Your task to perform on an android device: toggle sleep mode Image 0: 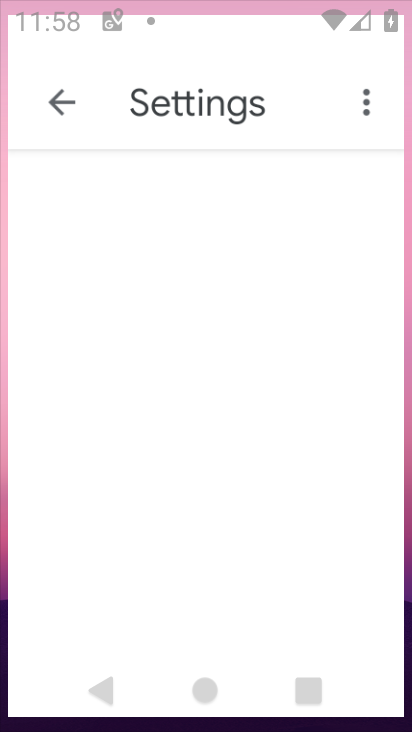
Step 0: drag from (314, 723) to (202, 275)
Your task to perform on an android device: toggle sleep mode Image 1: 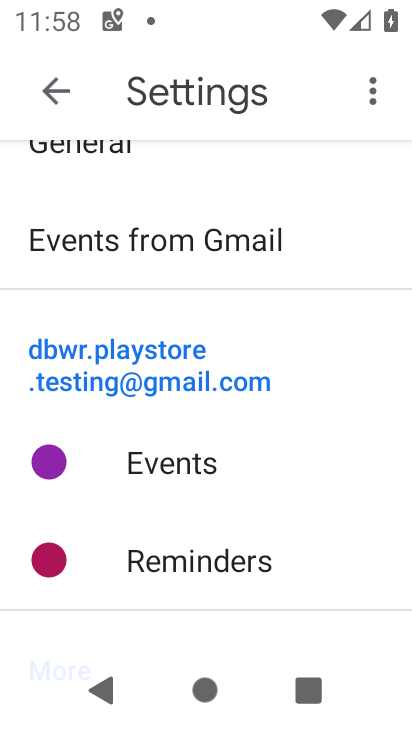
Step 1: click (58, 101)
Your task to perform on an android device: toggle sleep mode Image 2: 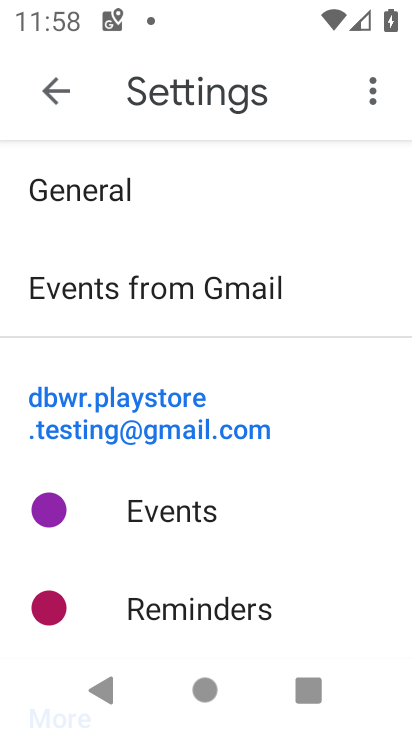
Step 2: click (41, 82)
Your task to perform on an android device: toggle sleep mode Image 3: 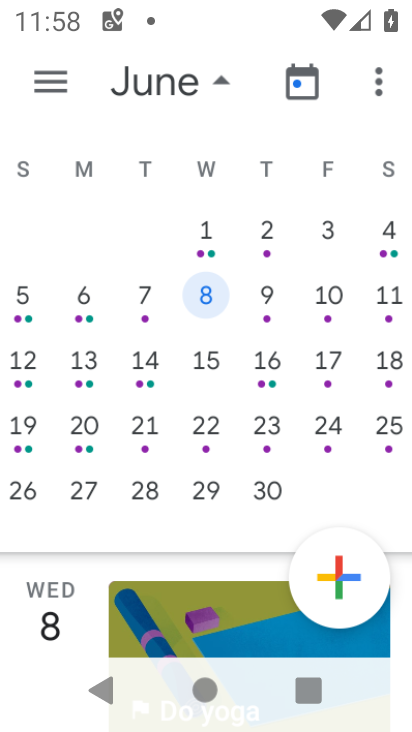
Step 3: click (50, 87)
Your task to perform on an android device: toggle sleep mode Image 4: 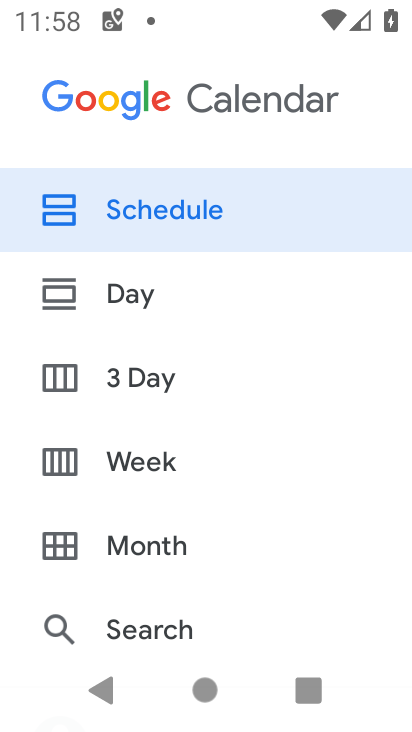
Step 4: press back button
Your task to perform on an android device: toggle sleep mode Image 5: 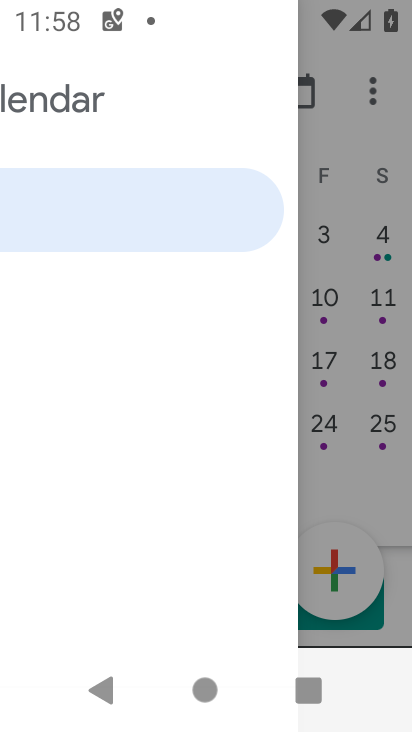
Step 5: press back button
Your task to perform on an android device: toggle sleep mode Image 6: 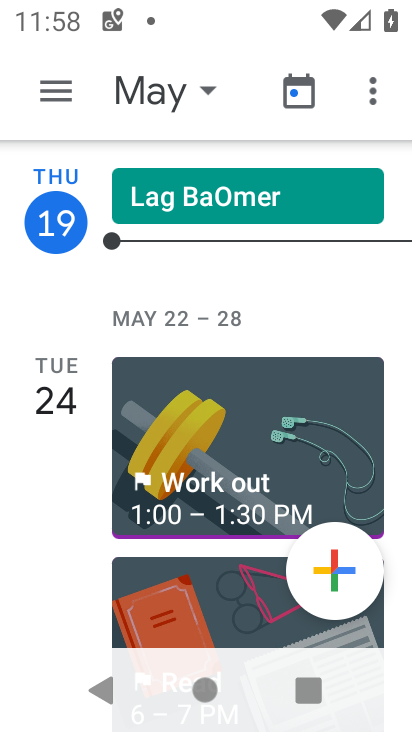
Step 6: press home button
Your task to perform on an android device: toggle sleep mode Image 7: 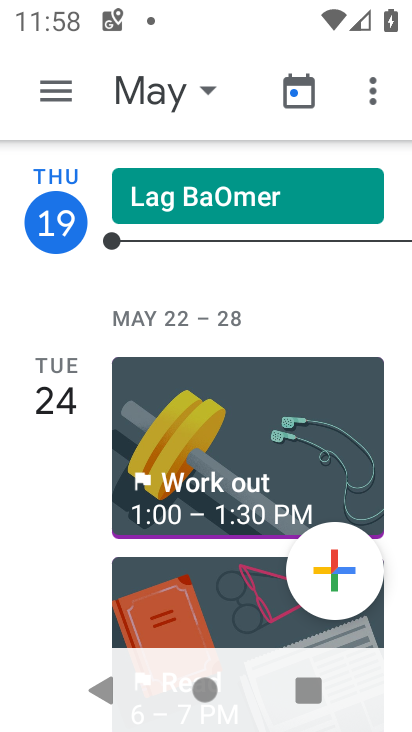
Step 7: press home button
Your task to perform on an android device: toggle sleep mode Image 8: 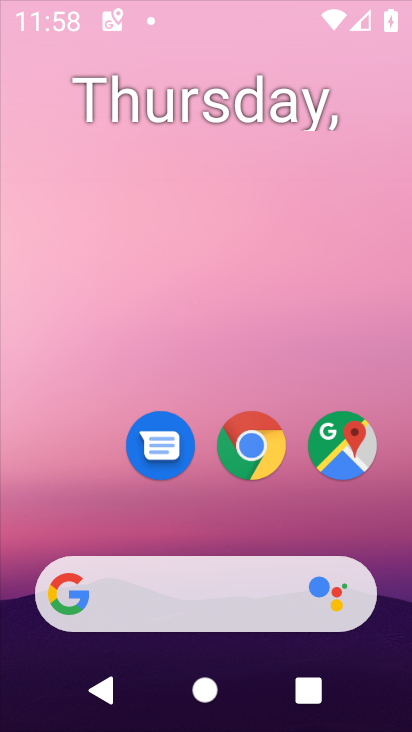
Step 8: press home button
Your task to perform on an android device: toggle sleep mode Image 9: 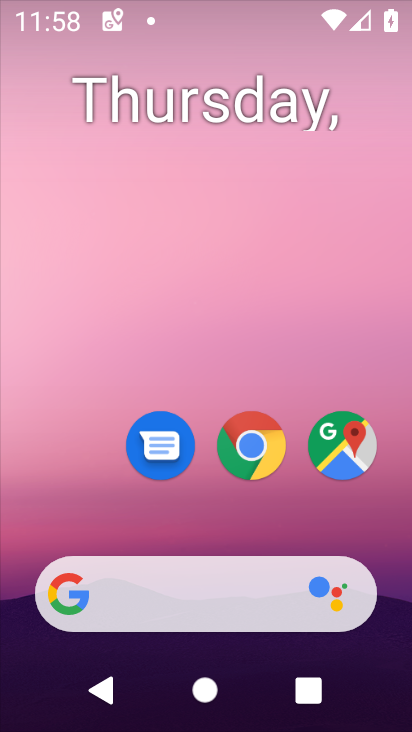
Step 9: press home button
Your task to perform on an android device: toggle sleep mode Image 10: 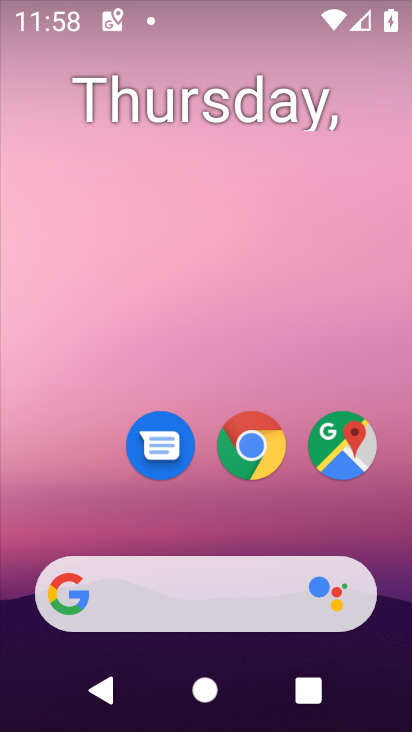
Step 10: drag from (284, 671) to (191, 61)
Your task to perform on an android device: toggle sleep mode Image 11: 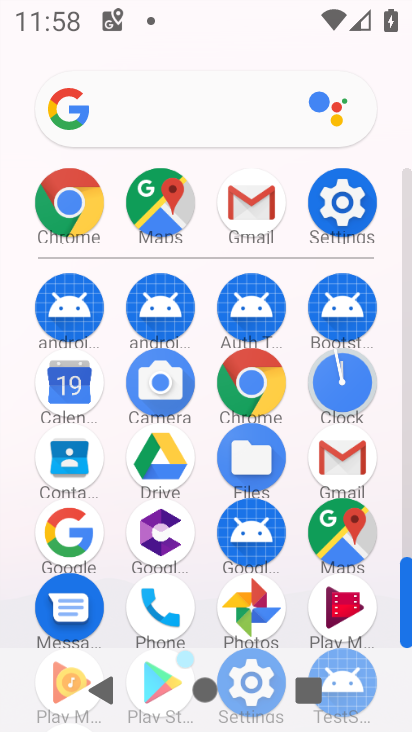
Step 11: click (332, 211)
Your task to perform on an android device: toggle sleep mode Image 12: 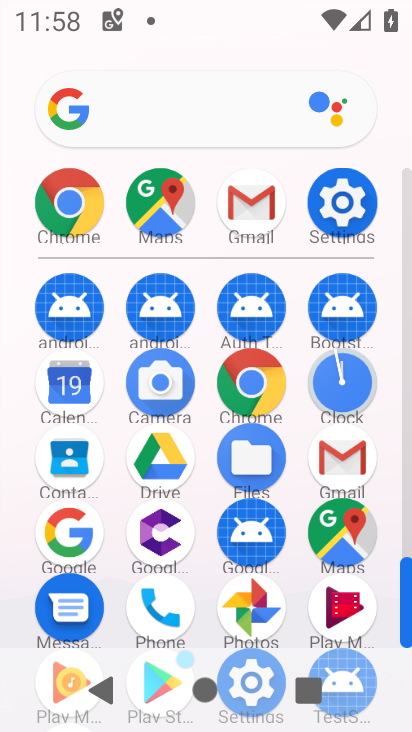
Step 12: click (332, 211)
Your task to perform on an android device: toggle sleep mode Image 13: 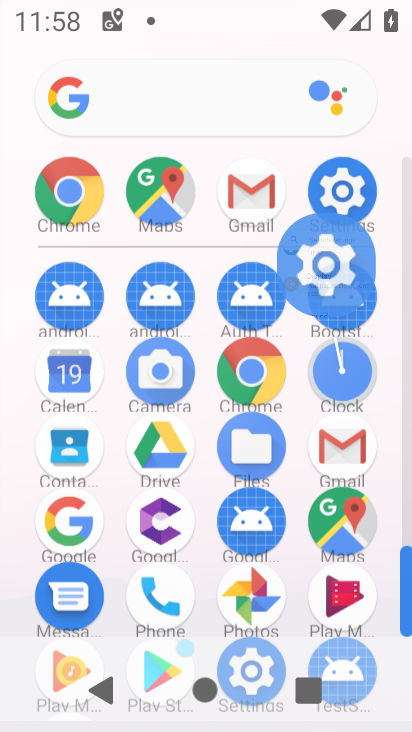
Step 13: click (333, 210)
Your task to perform on an android device: toggle sleep mode Image 14: 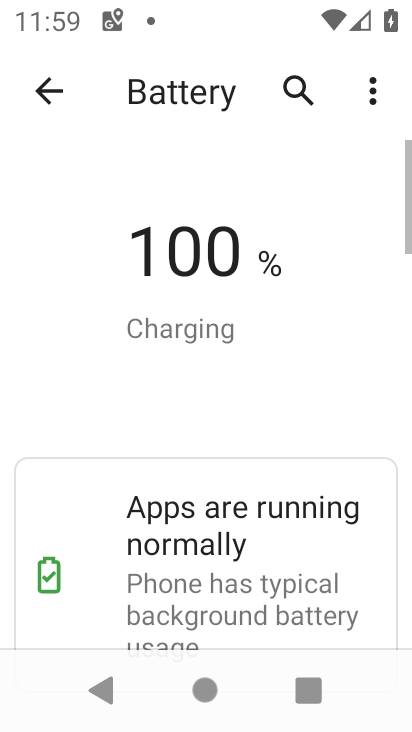
Step 14: click (31, 94)
Your task to perform on an android device: toggle sleep mode Image 15: 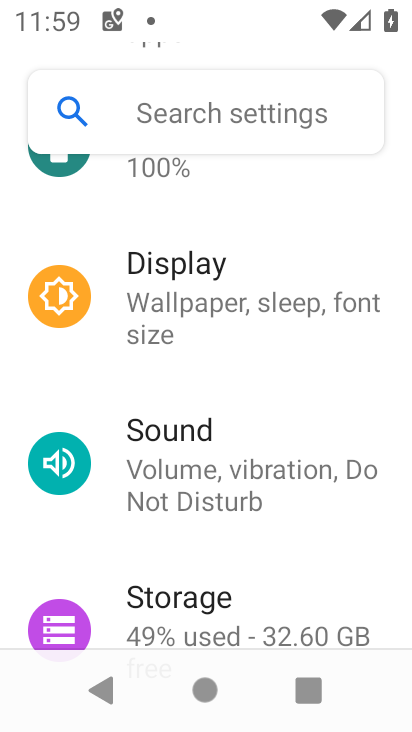
Step 15: drag from (195, 397) to (132, 108)
Your task to perform on an android device: toggle sleep mode Image 16: 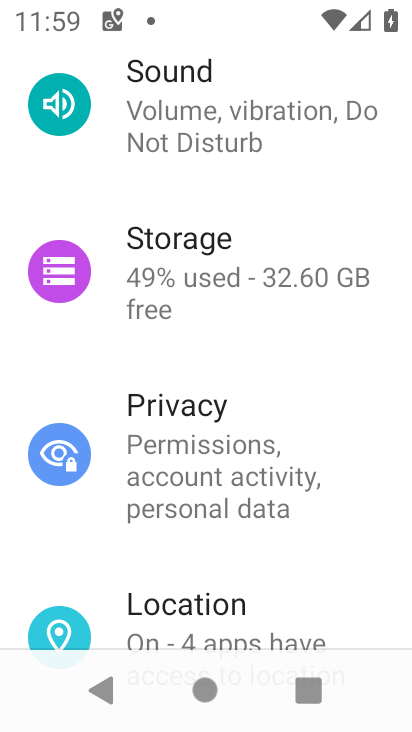
Step 16: drag from (223, 468) to (219, 147)
Your task to perform on an android device: toggle sleep mode Image 17: 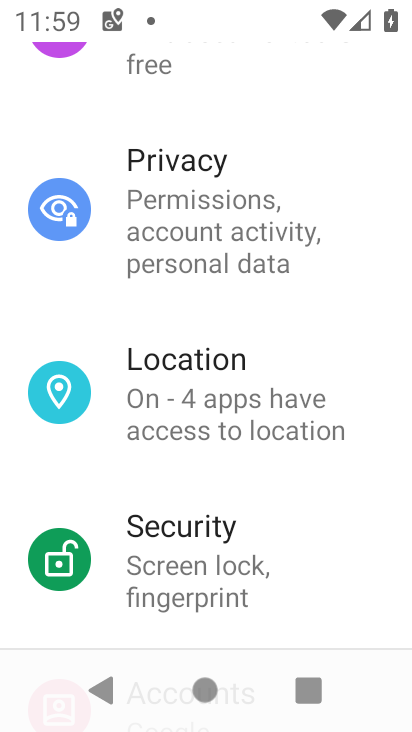
Step 17: drag from (231, 514) to (229, 263)
Your task to perform on an android device: toggle sleep mode Image 18: 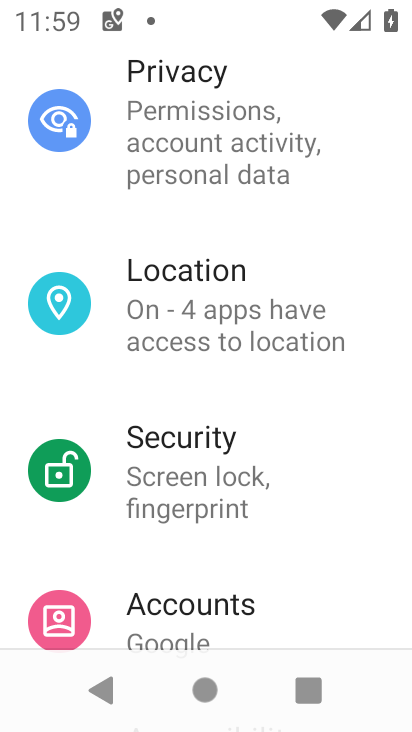
Step 18: drag from (270, 508) to (270, 127)
Your task to perform on an android device: toggle sleep mode Image 19: 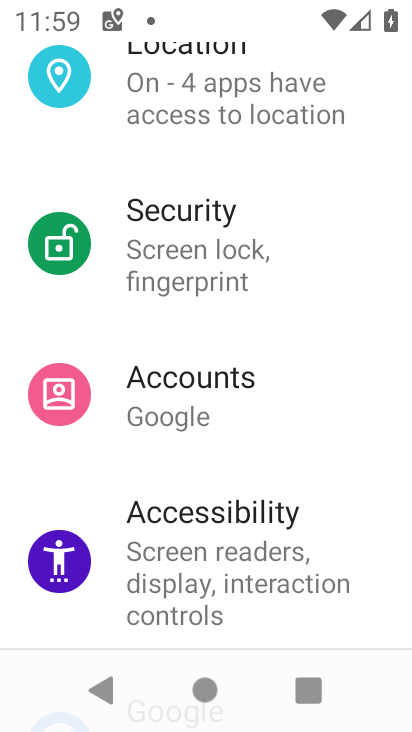
Step 19: drag from (267, 618) to (203, 119)
Your task to perform on an android device: toggle sleep mode Image 20: 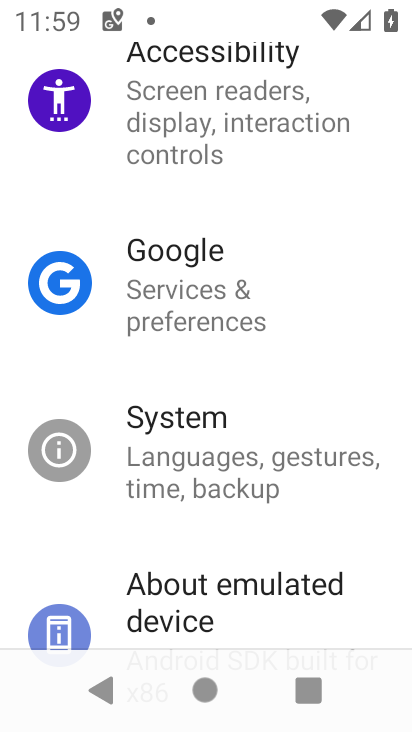
Step 20: drag from (191, 414) to (190, 45)
Your task to perform on an android device: toggle sleep mode Image 21: 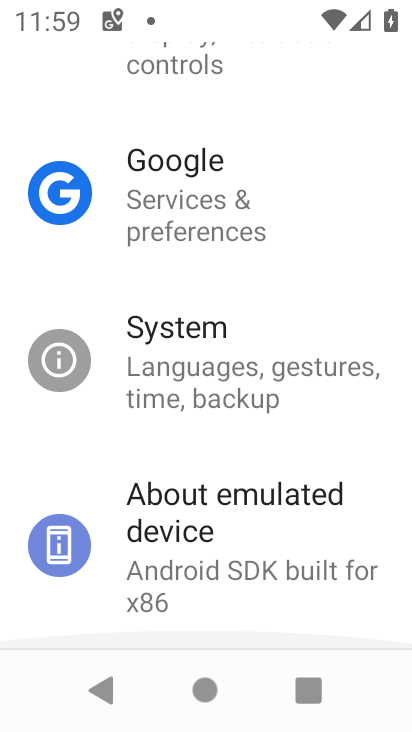
Step 21: drag from (204, 444) to (207, 75)
Your task to perform on an android device: toggle sleep mode Image 22: 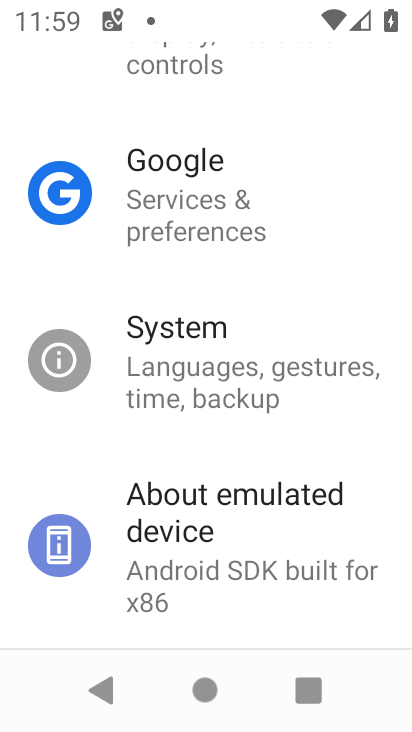
Step 22: drag from (218, 256) to (208, 538)
Your task to perform on an android device: toggle sleep mode Image 23: 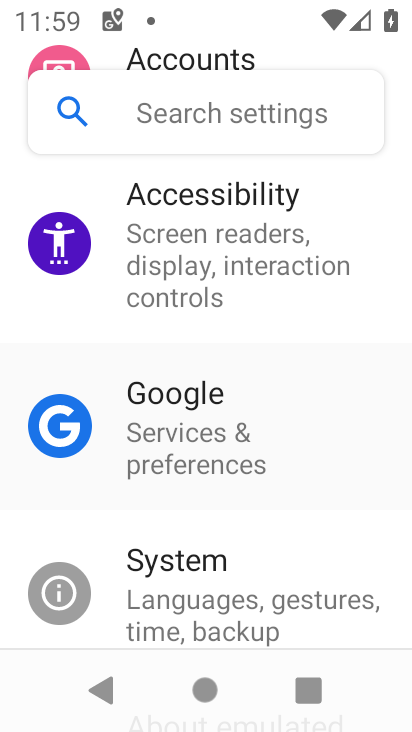
Step 23: drag from (187, 283) to (204, 572)
Your task to perform on an android device: toggle sleep mode Image 24: 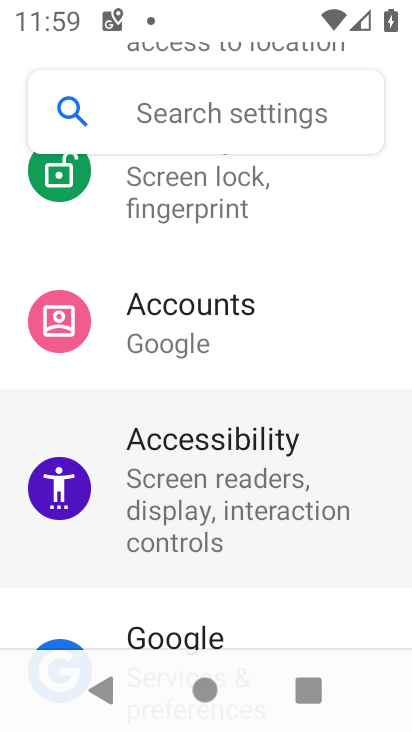
Step 24: drag from (203, 321) to (201, 582)
Your task to perform on an android device: toggle sleep mode Image 25: 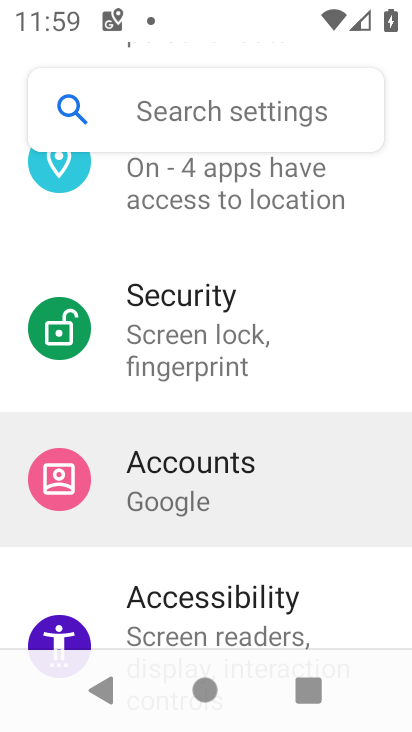
Step 25: drag from (201, 268) to (224, 590)
Your task to perform on an android device: toggle sleep mode Image 26: 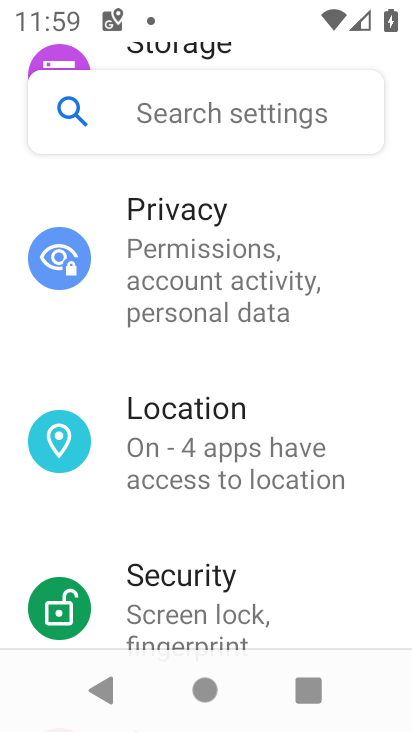
Step 26: drag from (236, 269) to (221, 579)
Your task to perform on an android device: toggle sleep mode Image 27: 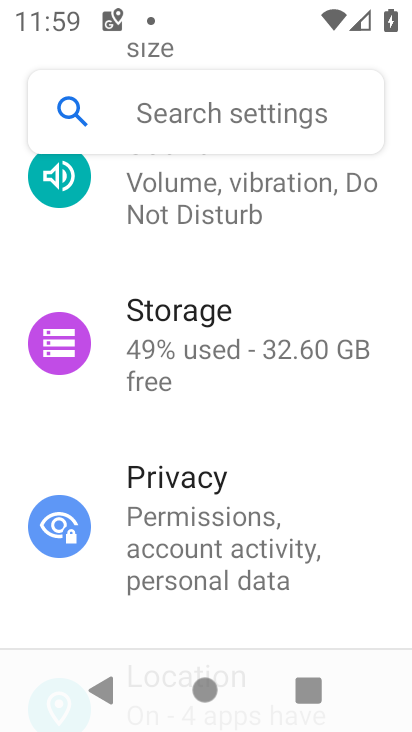
Step 27: drag from (199, 261) to (199, 624)
Your task to perform on an android device: toggle sleep mode Image 28: 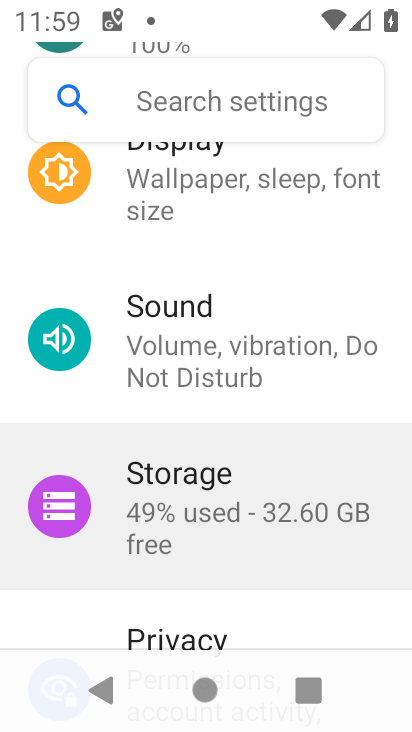
Step 28: drag from (179, 321) to (176, 614)
Your task to perform on an android device: toggle sleep mode Image 29: 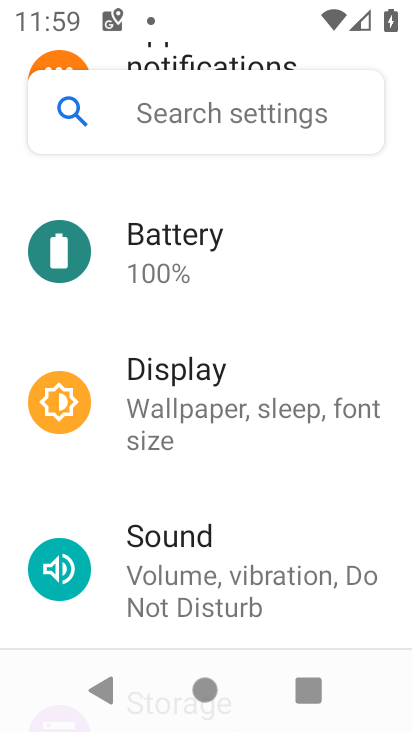
Step 29: drag from (229, 339) to (229, 619)
Your task to perform on an android device: toggle sleep mode Image 30: 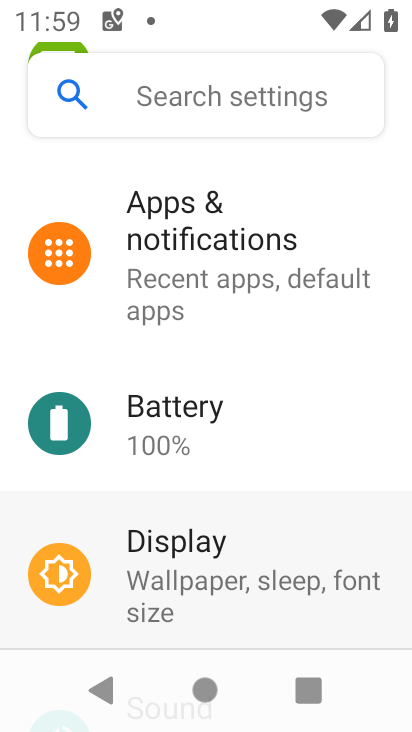
Step 30: drag from (196, 319) to (194, 490)
Your task to perform on an android device: toggle sleep mode Image 31: 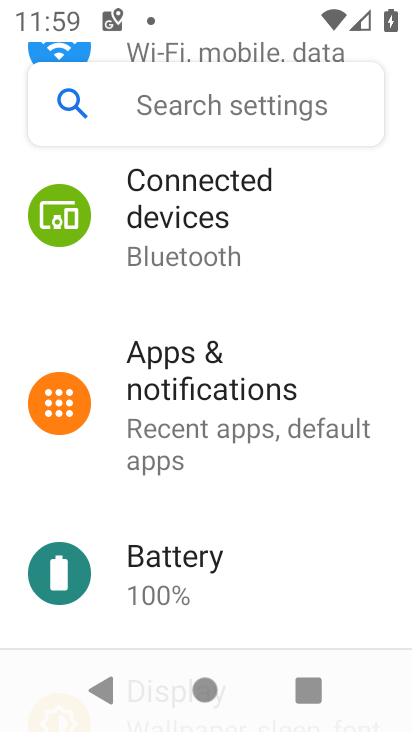
Step 31: drag from (171, 266) to (181, 520)
Your task to perform on an android device: toggle sleep mode Image 32: 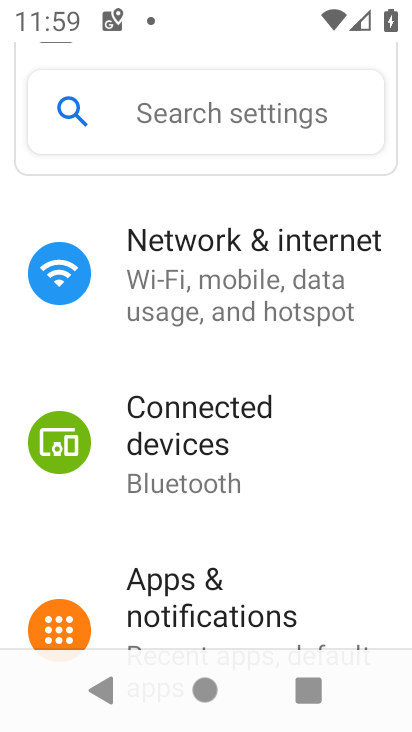
Step 32: drag from (183, 297) to (212, 482)
Your task to perform on an android device: toggle sleep mode Image 33: 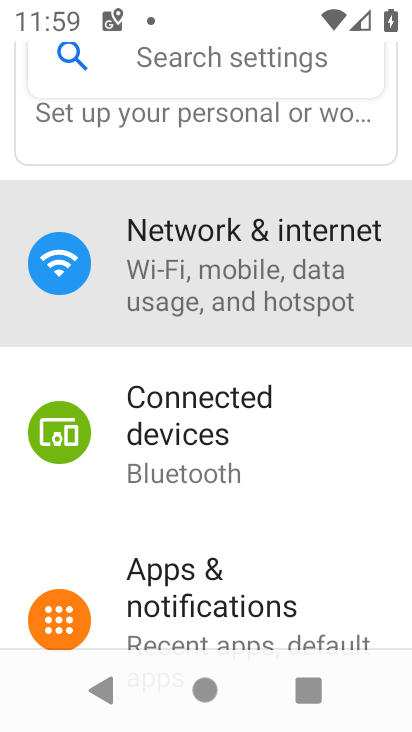
Step 33: drag from (211, 273) to (207, 474)
Your task to perform on an android device: toggle sleep mode Image 34: 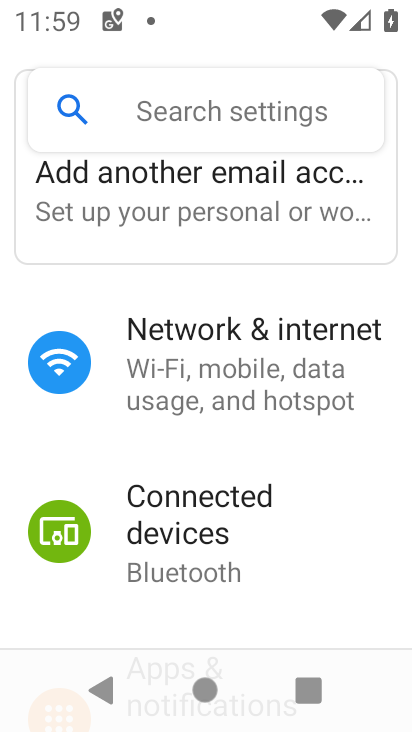
Step 34: drag from (237, 538) to (253, 213)
Your task to perform on an android device: toggle sleep mode Image 35: 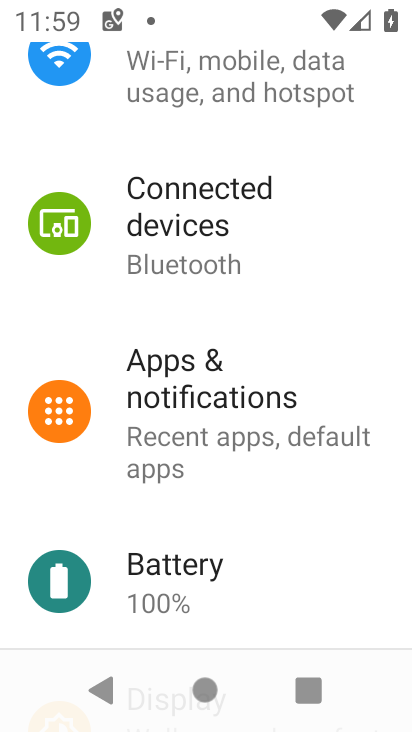
Step 35: drag from (176, 514) to (162, 121)
Your task to perform on an android device: toggle sleep mode Image 36: 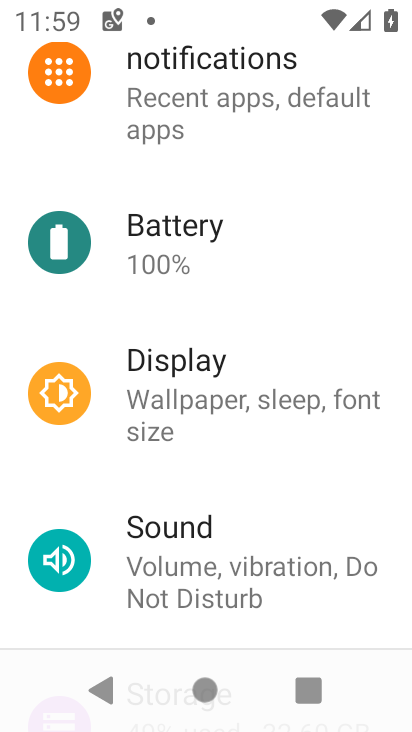
Step 36: drag from (269, 412) to (239, 155)
Your task to perform on an android device: toggle sleep mode Image 37: 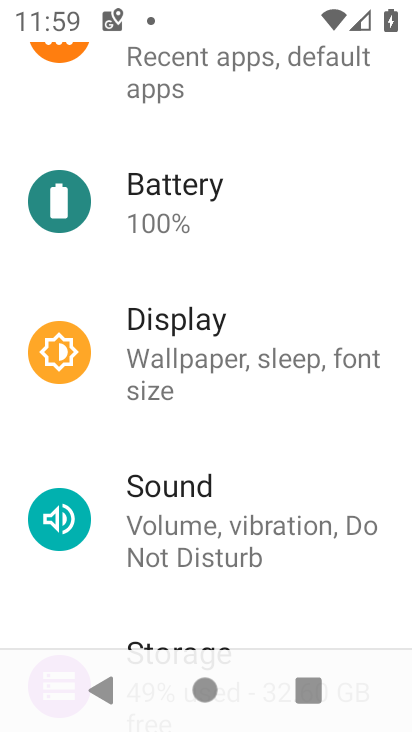
Step 37: click (170, 353)
Your task to perform on an android device: toggle sleep mode Image 38: 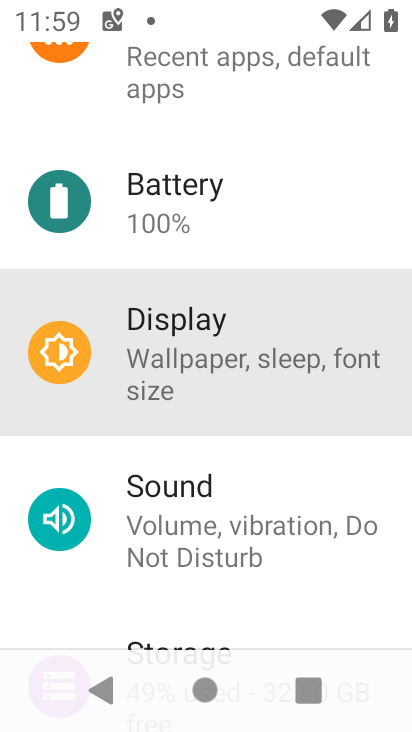
Step 38: click (170, 353)
Your task to perform on an android device: toggle sleep mode Image 39: 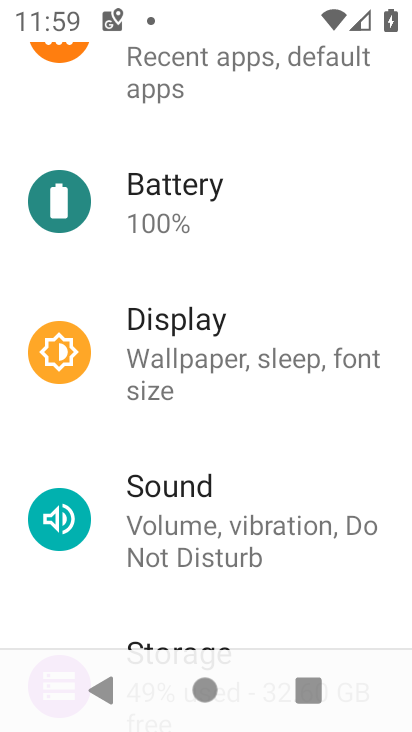
Step 39: click (171, 351)
Your task to perform on an android device: toggle sleep mode Image 40: 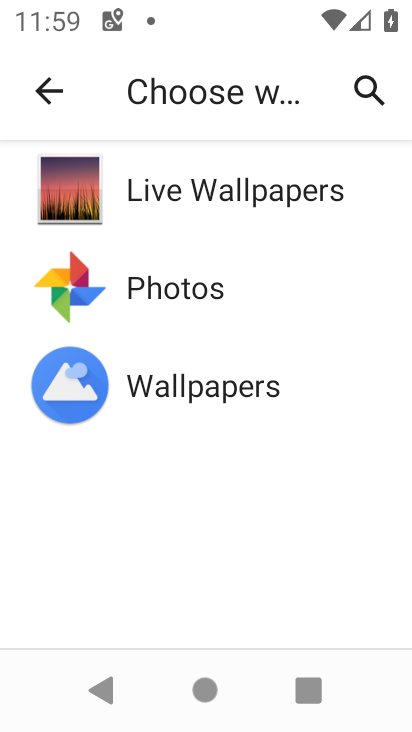
Step 40: click (45, 88)
Your task to perform on an android device: toggle sleep mode Image 41: 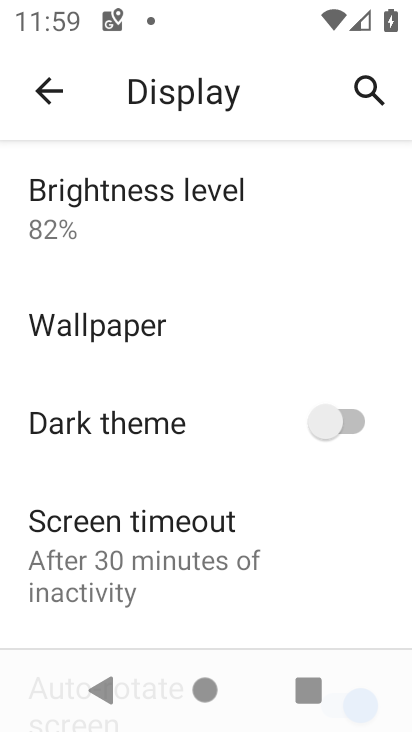
Step 41: task complete